Your task to perform on an android device: toggle javascript in the chrome app Image 0: 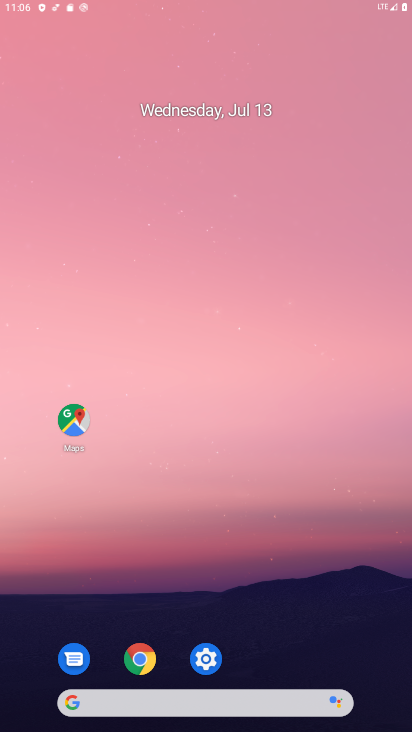
Step 0: drag from (316, 655) to (230, 171)
Your task to perform on an android device: toggle javascript in the chrome app Image 1: 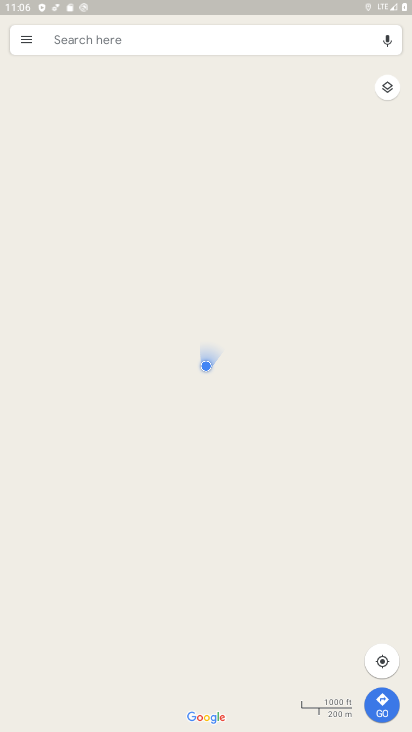
Step 1: press back button
Your task to perform on an android device: toggle javascript in the chrome app Image 2: 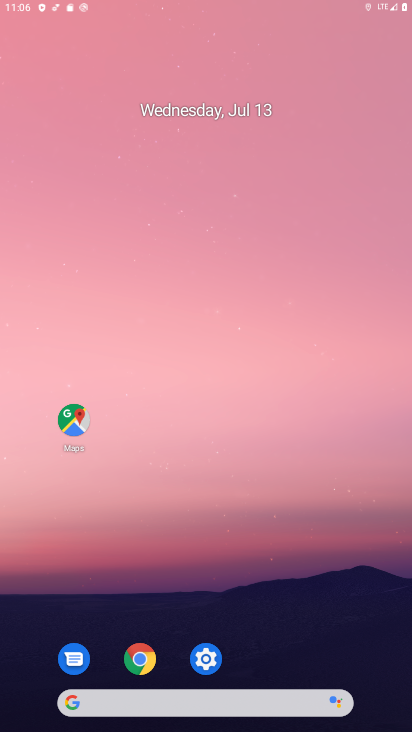
Step 2: press home button
Your task to perform on an android device: toggle javascript in the chrome app Image 3: 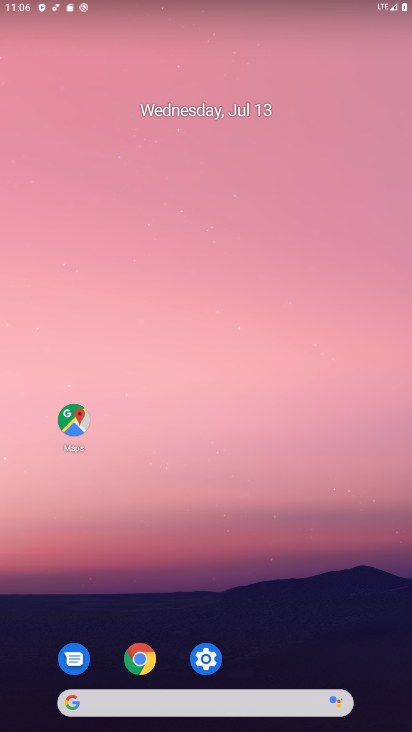
Step 3: drag from (284, 677) to (176, 87)
Your task to perform on an android device: toggle javascript in the chrome app Image 4: 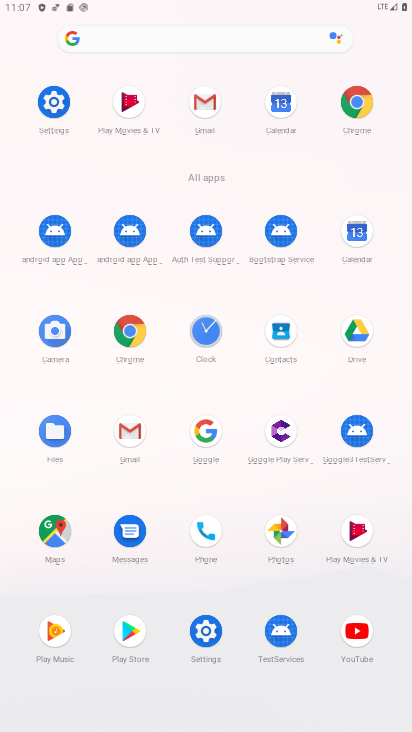
Step 4: click (353, 101)
Your task to perform on an android device: toggle javascript in the chrome app Image 5: 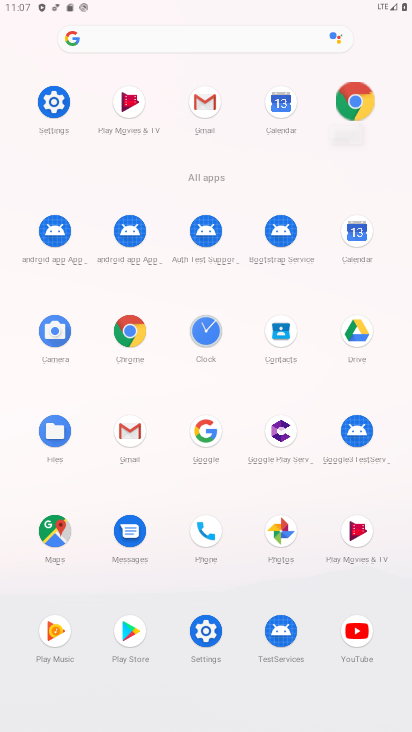
Step 5: click (357, 103)
Your task to perform on an android device: toggle javascript in the chrome app Image 6: 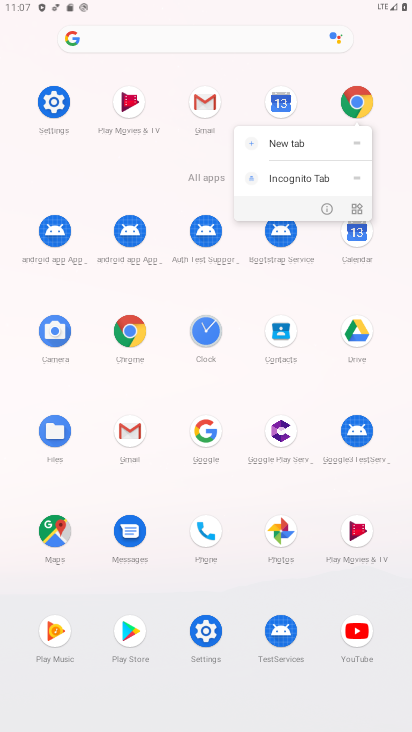
Step 6: click (359, 99)
Your task to perform on an android device: toggle javascript in the chrome app Image 7: 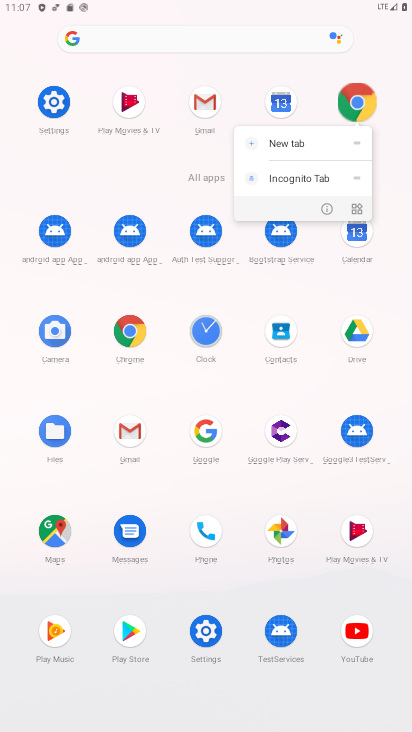
Step 7: click (358, 99)
Your task to perform on an android device: toggle javascript in the chrome app Image 8: 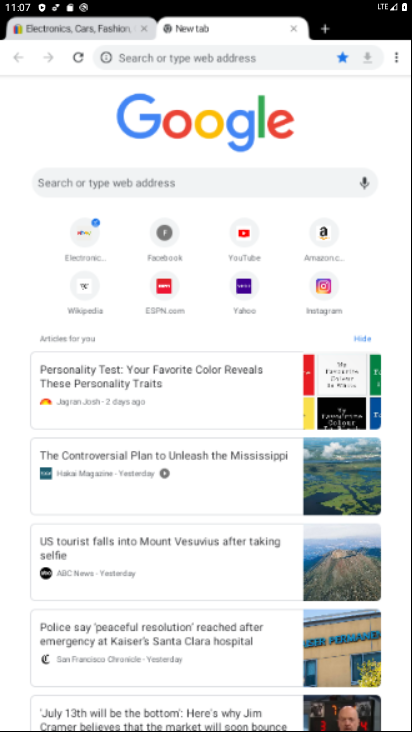
Step 8: click (359, 99)
Your task to perform on an android device: toggle javascript in the chrome app Image 9: 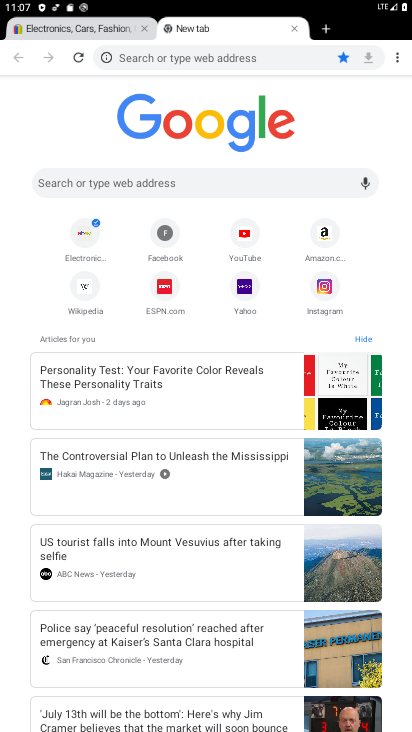
Step 9: drag from (390, 55) to (282, 274)
Your task to perform on an android device: toggle javascript in the chrome app Image 10: 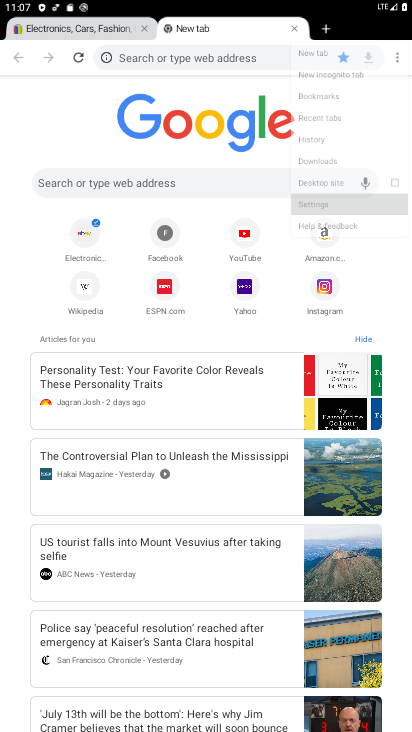
Step 10: click (282, 266)
Your task to perform on an android device: toggle javascript in the chrome app Image 11: 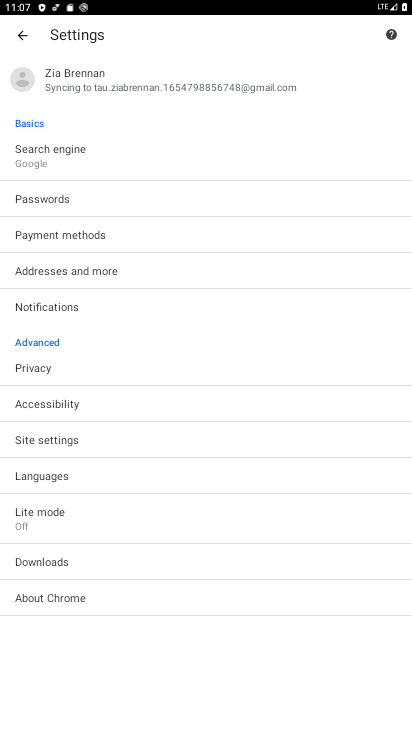
Step 11: click (41, 438)
Your task to perform on an android device: toggle javascript in the chrome app Image 12: 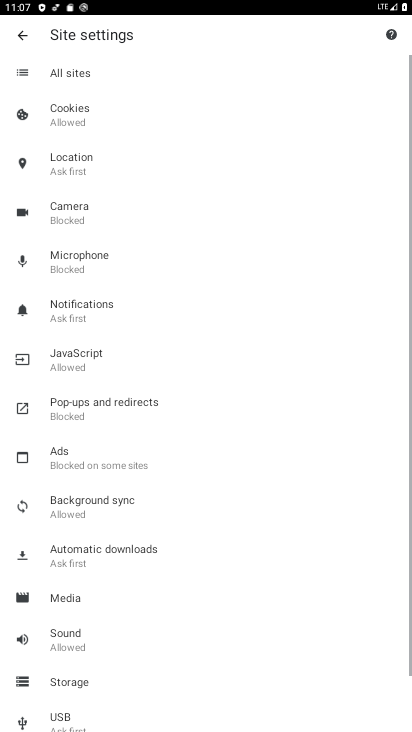
Step 12: click (45, 435)
Your task to perform on an android device: toggle javascript in the chrome app Image 13: 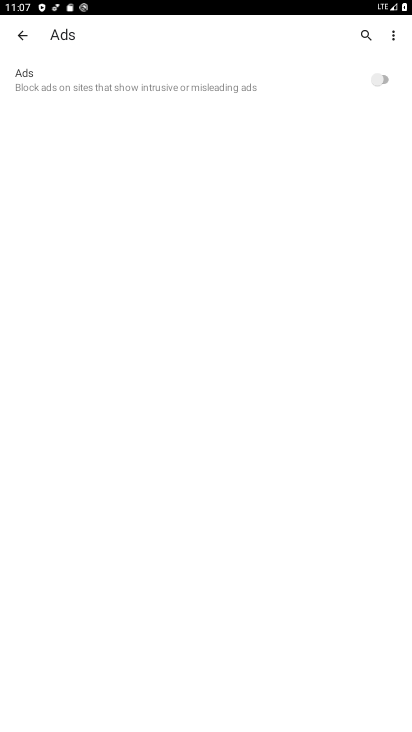
Step 13: click (11, 30)
Your task to perform on an android device: toggle javascript in the chrome app Image 14: 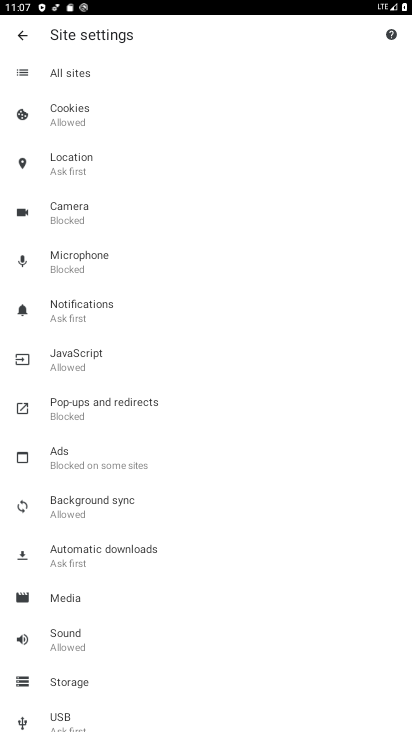
Step 14: click (79, 356)
Your task to perform on an android device: toggle javascript in the chrome app Image 15: 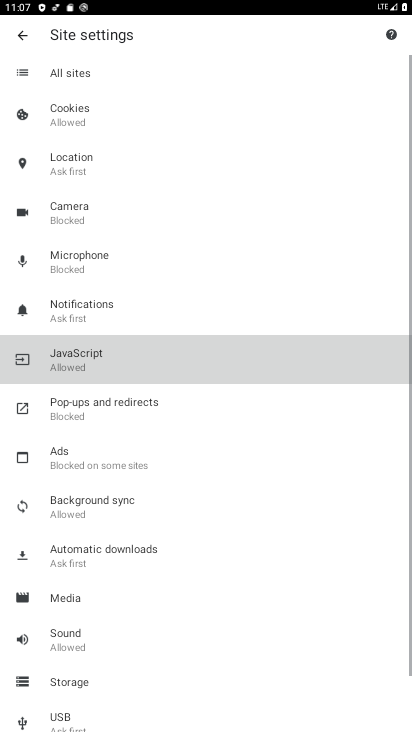
Step 15: click (73, 359)
Your task to perform on an android device: toggle javascript in the chrome app Image 16: 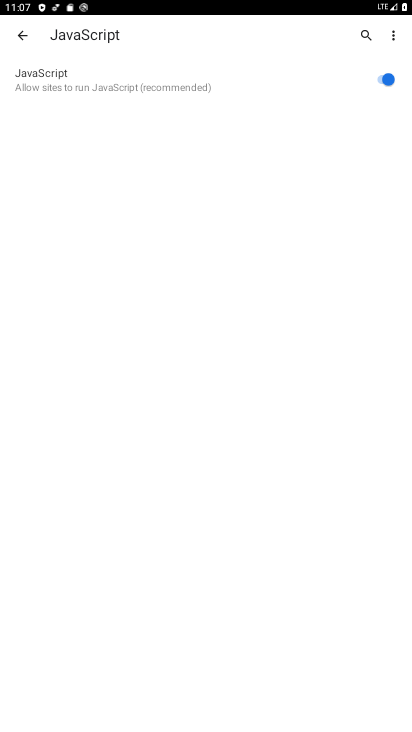
Step 16: click (386, 75)
Your task to perform on an android device: toggle javascript in the chrome app Image 17: 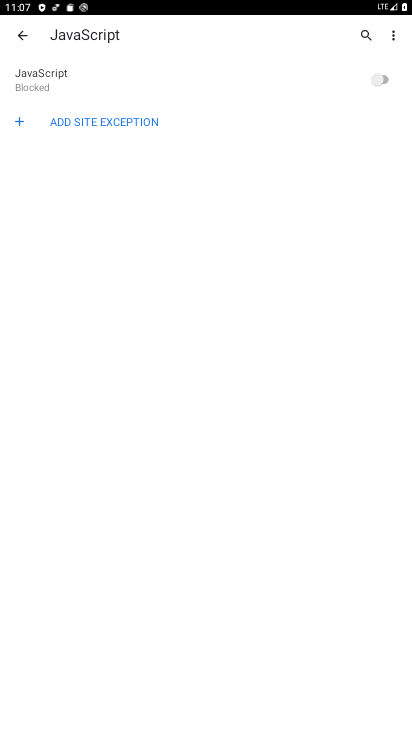
Step 17: task complete